Your task to perform on an android device: turn on sleep mode Image 0: 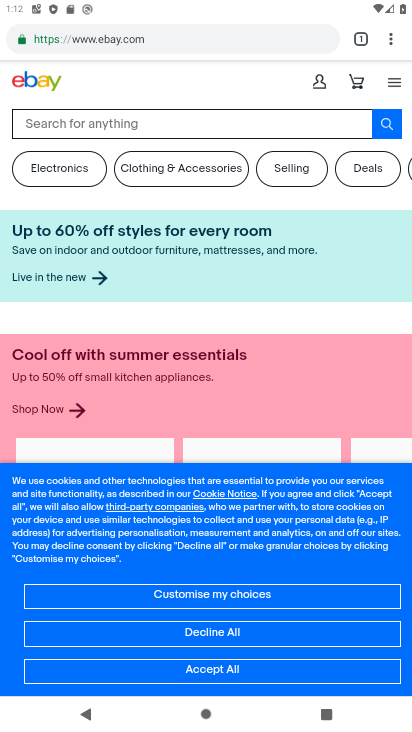
Step 0: press home button
Your task to perform on an android device: turn on sleep mode Image 1: 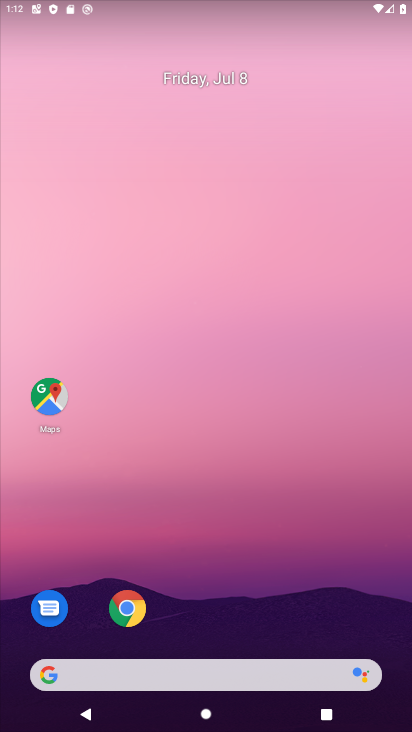
Step 1: drag from (371, 605) to (344, 10)
Your task to perform on an android device: turn on sleep mode Image 2: 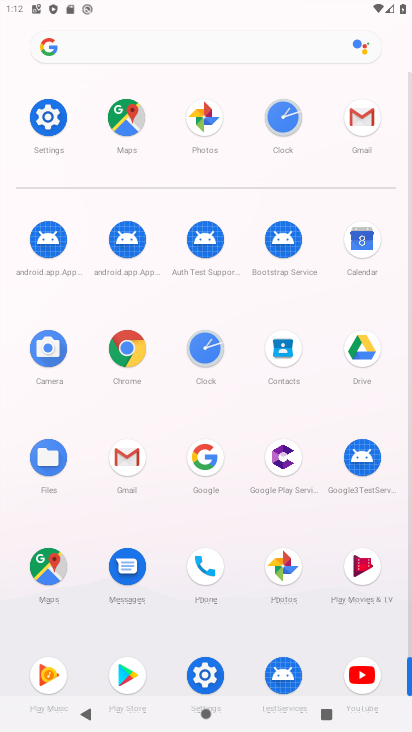
Step 2: click (206, 675)
Your task to perform on an android device: turn on sleep mode Image 3: 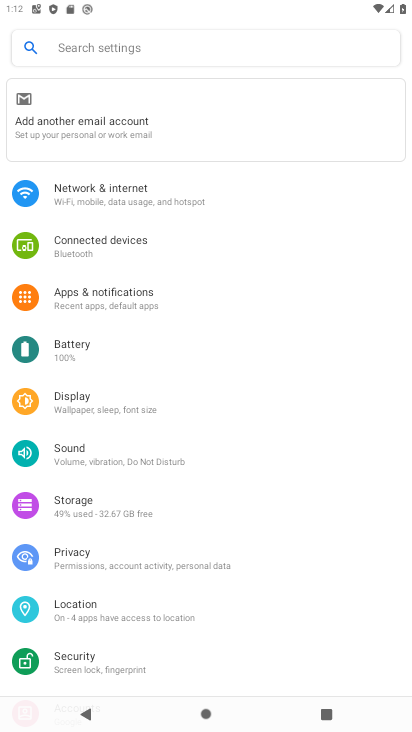
Step 3: click (76, 396)
Your task to perform on an android device: turn on sleep mode Image 4: 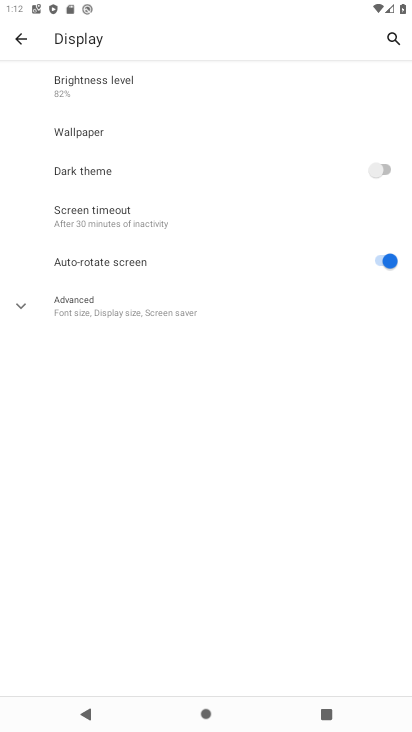
Step 4: click (20, 304)
Your task to perform on an android device: turn on sleep mode Image 5: 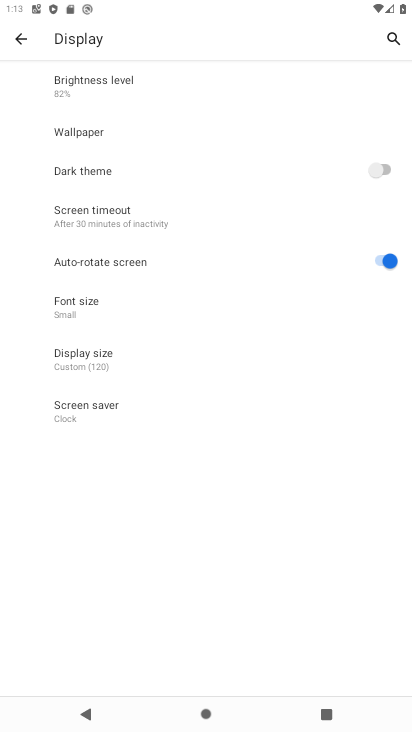
Step 5: task complete